Your task to perform on an android device: Search for Italian restaurants on Maps Image 0: 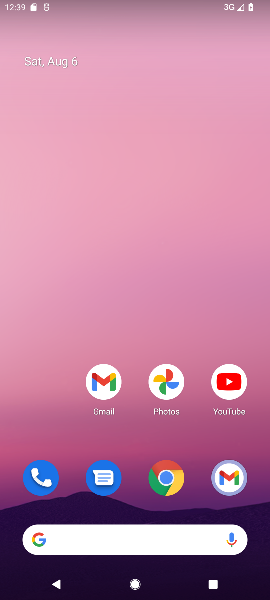
Step 0: drag from (150, 517) to (150, 222)
Your task to perform on an android device: Search for Italian restaurants on Maps Image 1: 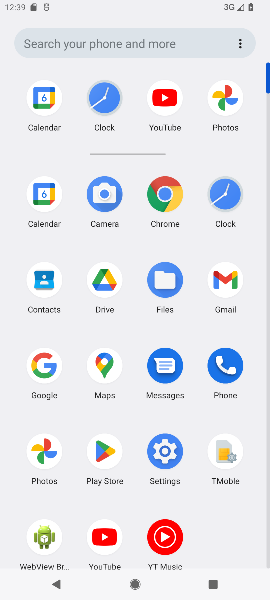
Step 1: click (105, 362)
Your task to perform on an android device: Search for Italian restaurants on Maps Image 2: 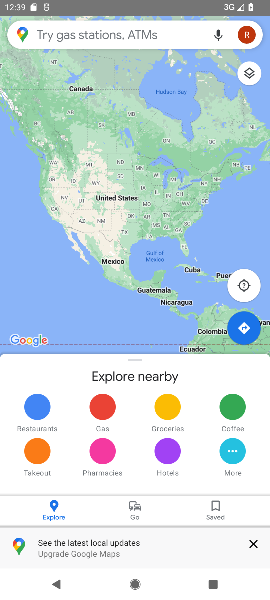
Step 2: click (110, 31)
Your task to perform on an android device: Search for Italian restaurants on Maps Image 3: 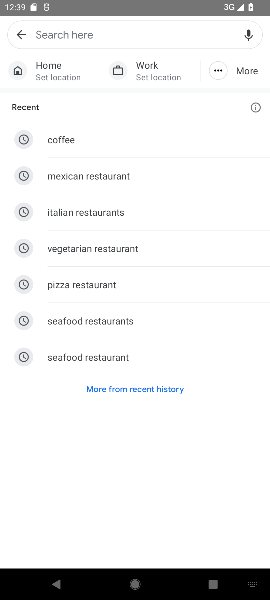
Step 3: click (78, 213)
Your task to perform on an android device: Search for Italian restaurants on Maps Image 4: 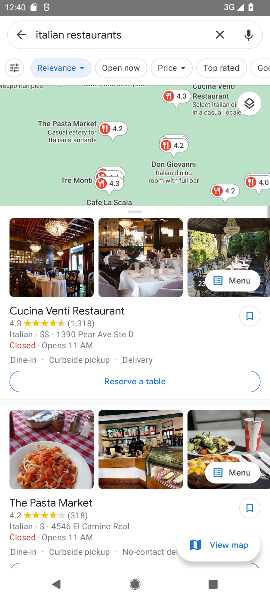
Step 4: task complete